Your task to perform on an android device: install app "Lyft - Rideshare, Bikes, Scooters & Transit" Image 0: 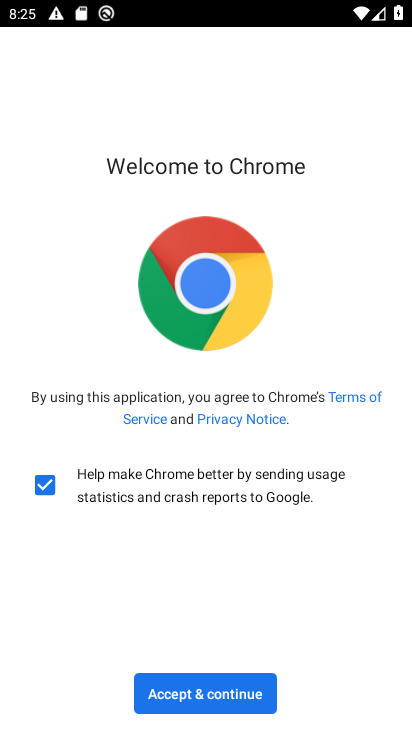
Step 0: press home button
Your task to perform on an android device: install app "Lyft - Rideshare, Bikes, Scooters & Transit" Image 1: 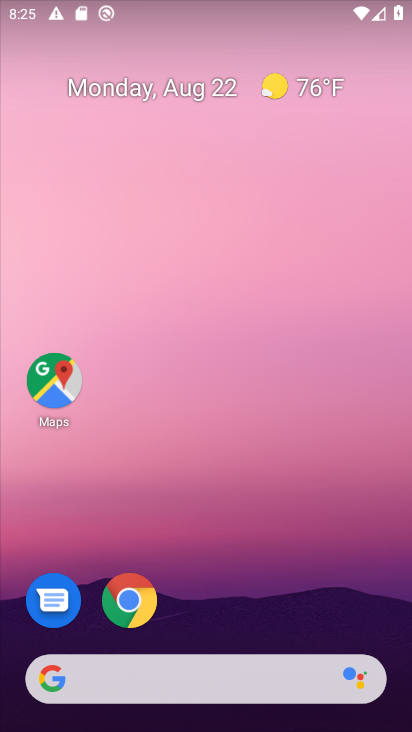
Step 1: drag from (201, 561) to (260, 217)
Your task to perform on an android device: install app "Lyft - Rideshare, Bikes, Scooters & Transit" Image 2: 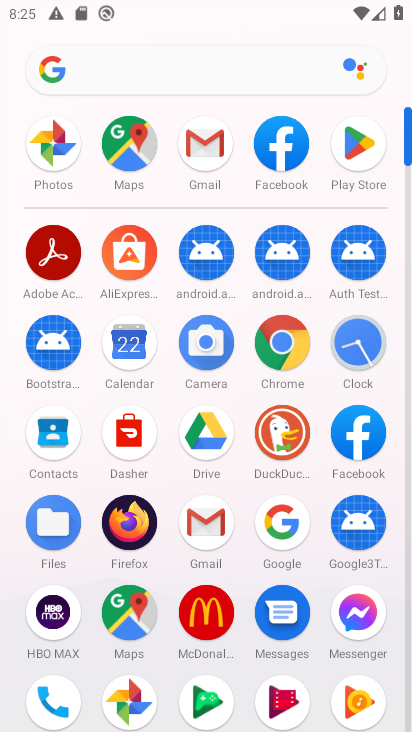
Step 2: click (360, 153)
Your task to perform on an android device: install app "Lyft - Rideshare, Bikes, Scooters & Transit" Image 3: 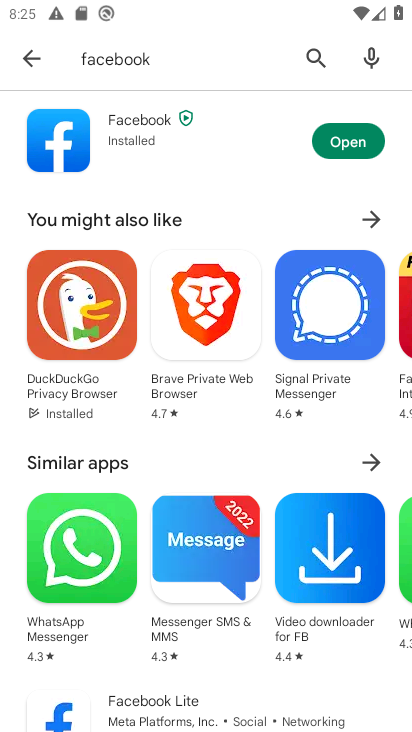
Step 3: click (312, 61)
Your task to perform on an android device: install app "Lyft - Rideshare, Bikes, Scooters & Transit" Image 4: 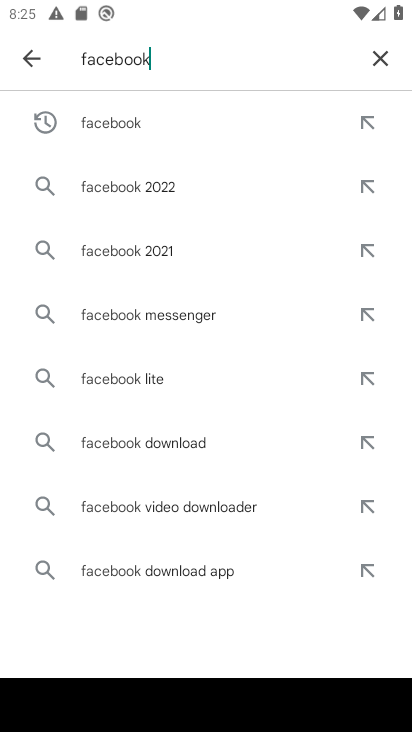
Step 4: click (383, 63)
Your task to perform on an android device: install app "Lyft - Rideshare, Bikes, Scooters & Transit" Image 5: 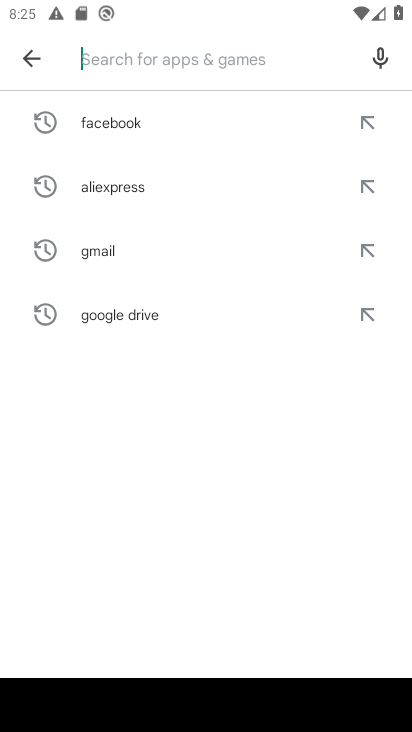
Step 5: type "Lyft - Rideshare, Bikes, Scooters & Transit"
Your task to perform on an android device: install app "Lyft - Rideshare, Bikes, Scooters & Transit" Image 6: 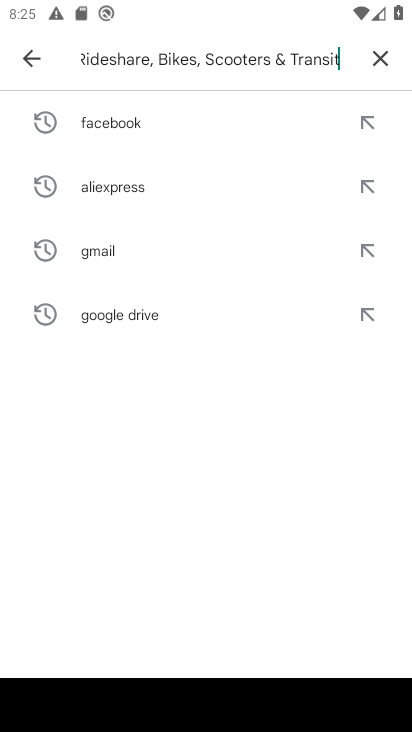
Step 6: type ""
Your task to perform on an android device: install app "Lyft - Rideshare, Bikes, Scooters & Transit" Image 7: 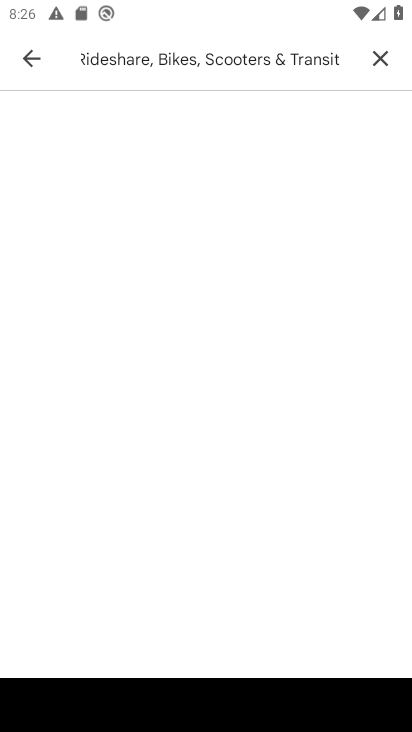
Step 7: click (377, 58)
Your task to perform on an android device: install app "Lyft - Rideshare, Bikes, Scooters & Transit" Image 8: 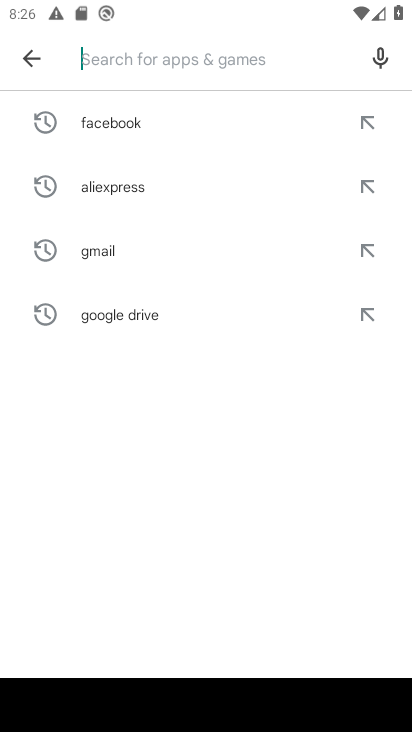
Step 8: type "Lyft"
Your task to perform on an android device: install app "Lyft - Rideshare, Bikes, Scooters & Transit" Image 9: 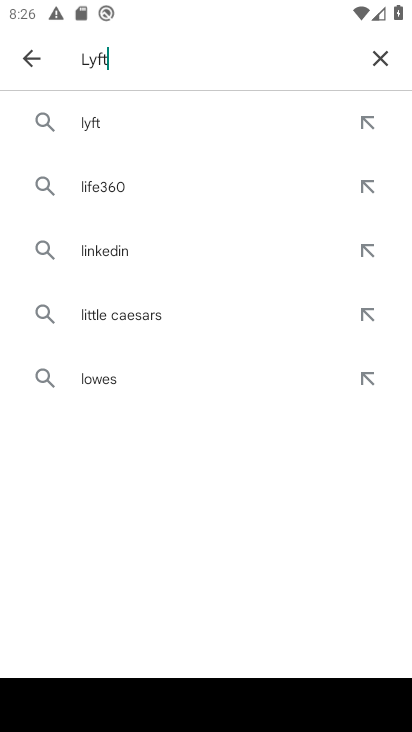
Step 9: type ""
Your task to perform on an android device: install app "Lyft - Rideshare, Bikes, Scooters & Transit" Image 10: 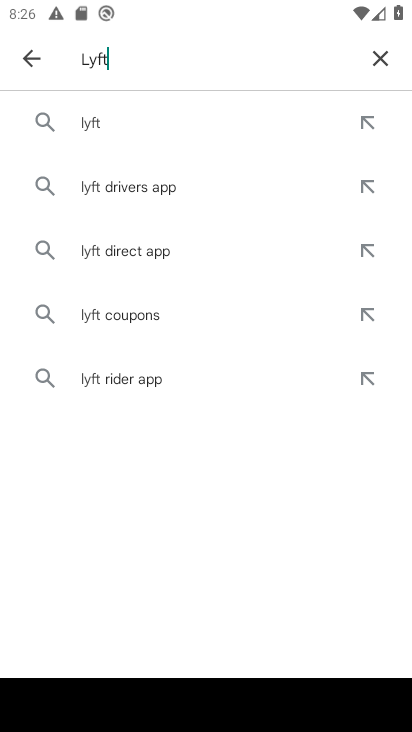
Step 10: click (127, 118)
Your task to perform on an android device: install app "Lyft - Rideshare, Bikes, Scooters & Transit" Image 11: 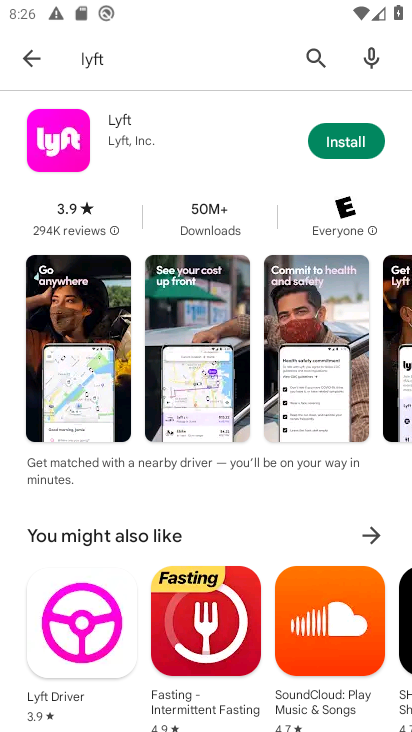
Step 11: click (356, 143)
Your task to perform on an android device: install app "Lyft - Rideshare, Bikes, Scooters & Transit" Image 12: 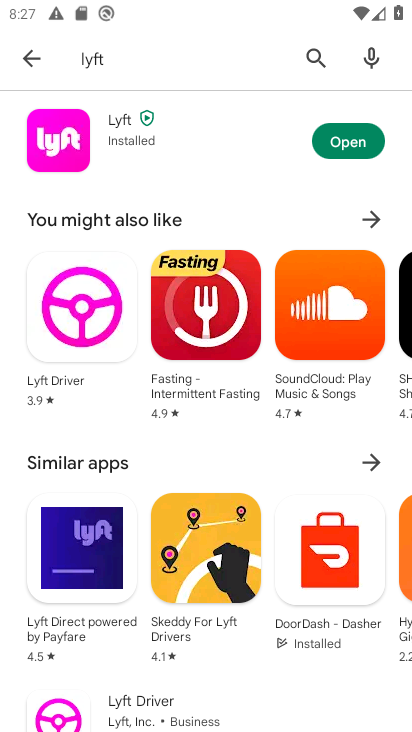
Step 12: task complete